Your task to perform on an android device: find snoozed emails in the gmail app Image 0: 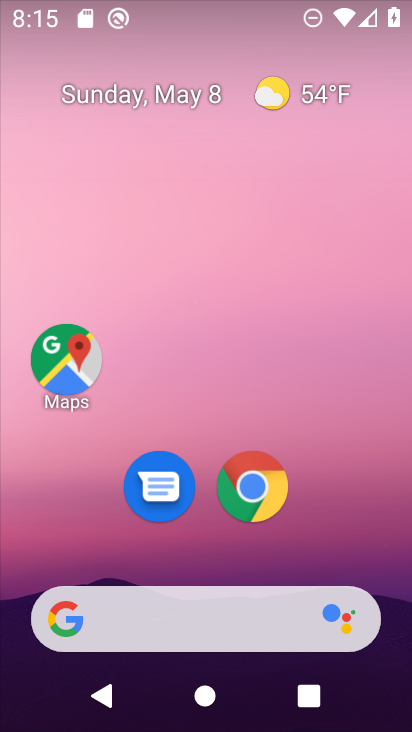
Step 0: drag from (256, 473) to (308, 181)
Your task to perform on an android device: find snoozed emails in the gmail app Image 1: 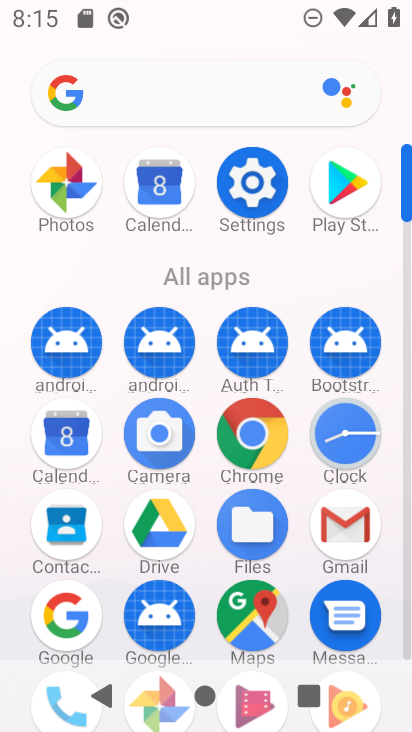
Step 1: click (347, 527)
Your task to perform on an android device: find snoozed emails in the gmail app Image 2: 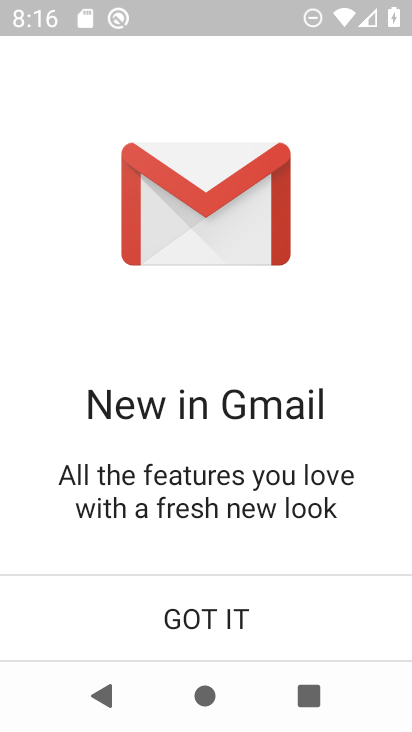
Step 2: click (210, 625)
Your task to perform on an android device: find snoozed emails in the gmail app Image 3: 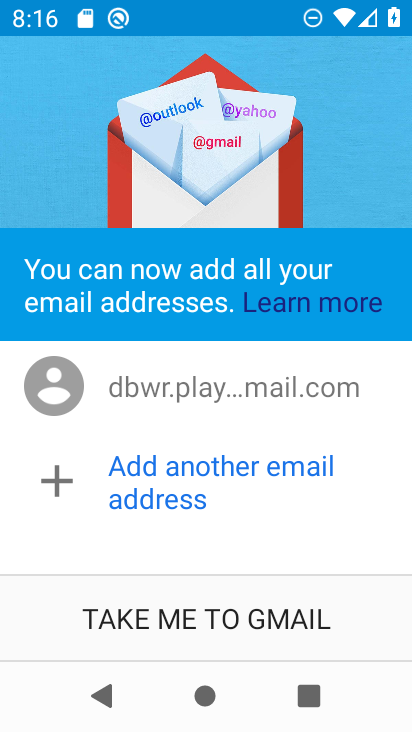
Step 3: click (252, 613)
Your task to perform on an android device: find snoozed emails in the gmail app Image 4: 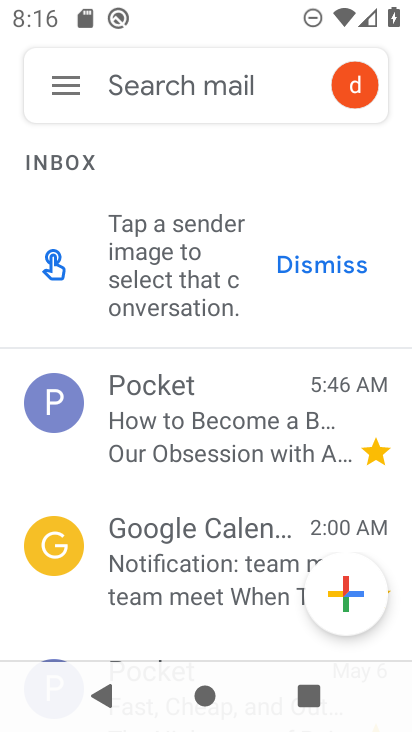
Step 4: click (63, 86)
Your task to perform on an android device: find snoozed emails in the gmail app Image 5: 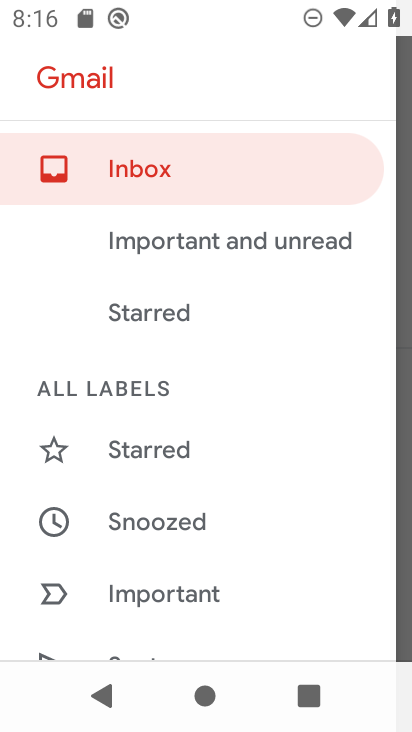
Step 5: click (184, 517)
Your task to perform on an android device: find snoozed emails in the gmail app Image 6: 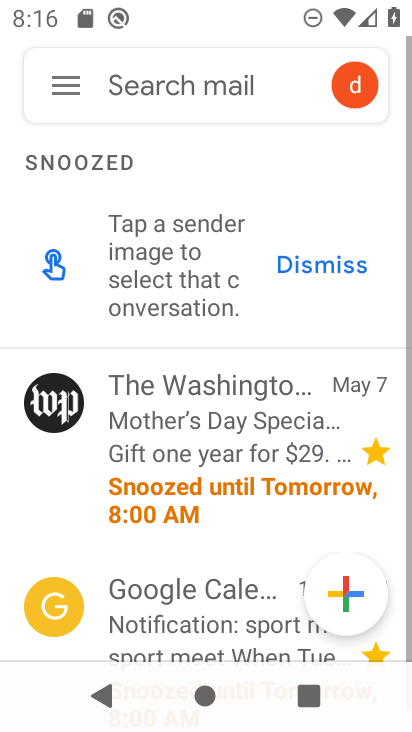
Step 6: task complete